Your task to perform on an android device: Search for sushi restaurants on Maps Image 0: 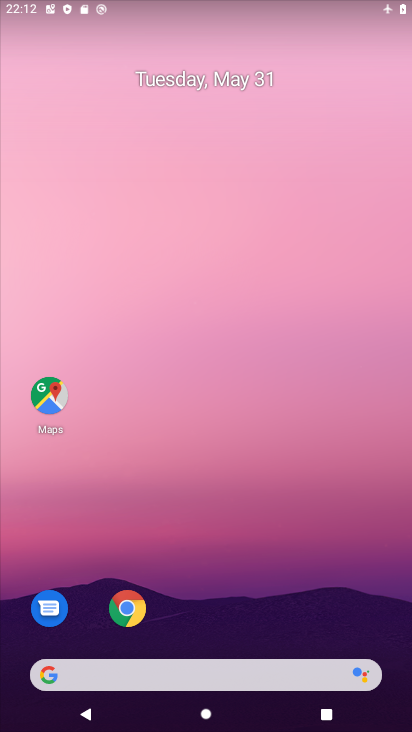
Step 0: click (62, 378)
Your task to perform on an android device: Search for sushi restaurants on Maps Image 1: 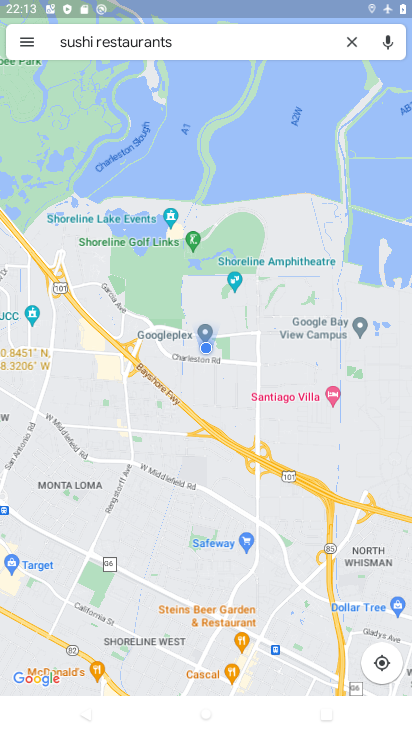
Step 1: task complete